Your task to perform on an android device: turn off improve location accuracy Image 0: 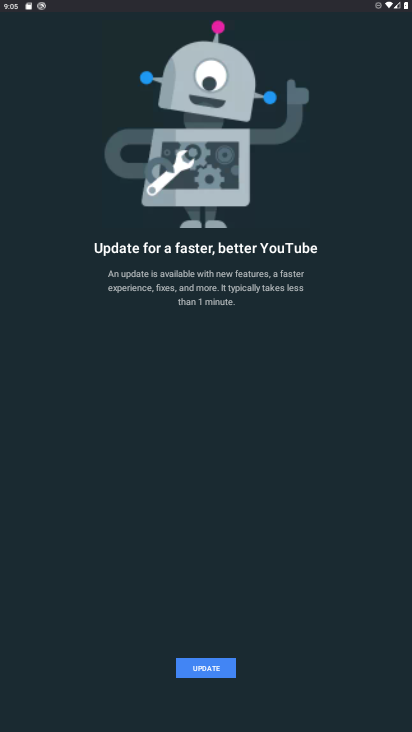
Step 0: press home button
Your task to perform on an android device: turn off improve location accuracy Image 1: 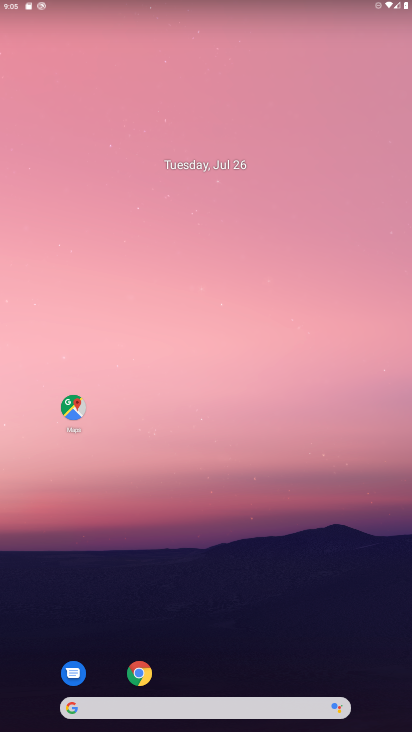
Step 1: drag from (196, 682) to (254, 14)
Your task to perform on an android device: turn off improve location accuracy Image 2: 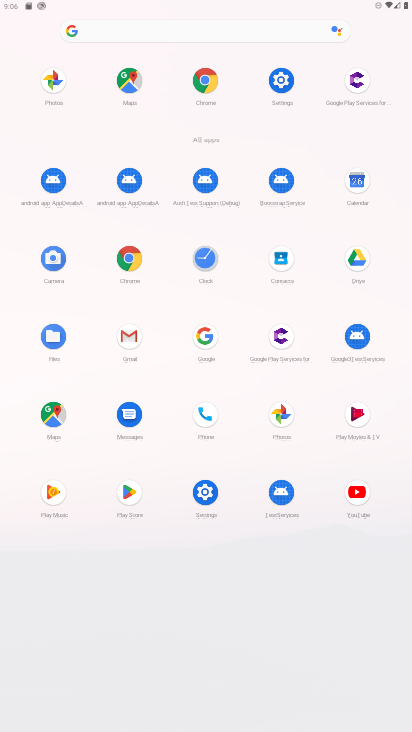
Step 2: click (282, 94)
Your task to perform on an android device: turn off improve location accuracy Image 3: 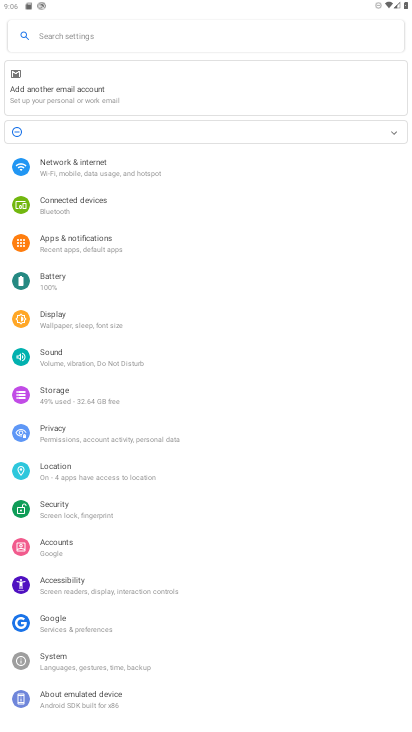
Step 3: click (55, 472)
Your task to perform on an android device: turn off improve location accuracy Image 4: 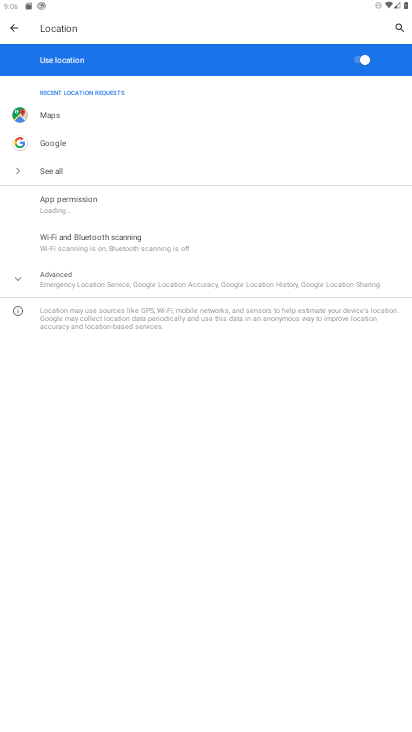
Step 4: click (17, 285)
Your task to perform on an android device: turn off improve location accuracy Image 5: 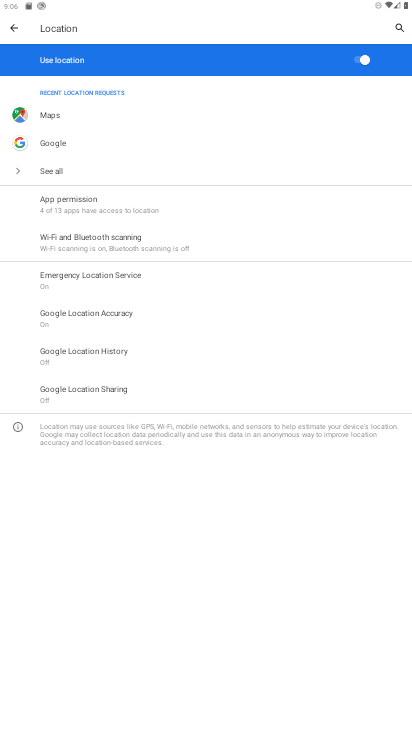
Step 5: click (77, 315)
Your task to perform on an android device: turn off improve location accuracy Image 6: 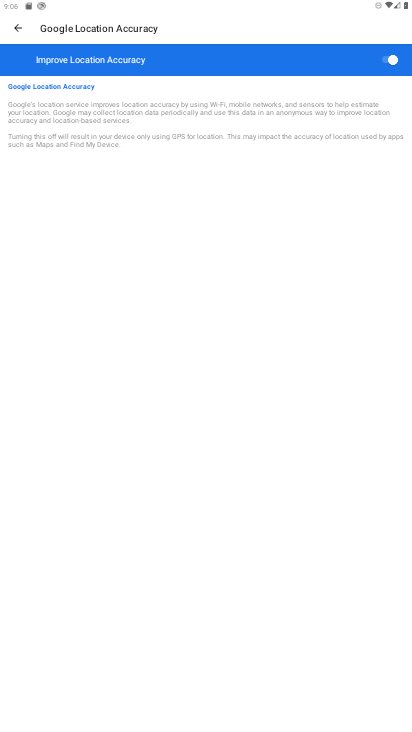
Step 6: click (389, 64)
Your task to perform on an android device: turn off improve location accuracy Image 7: 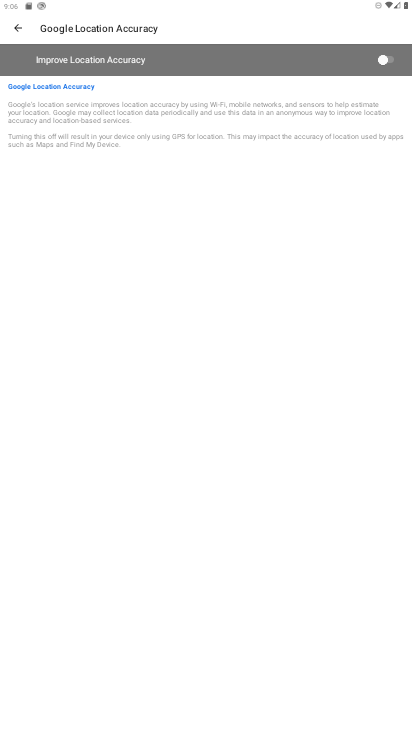
Step 7: task complete